Your task to perform on an android device: Open the map Image 0: 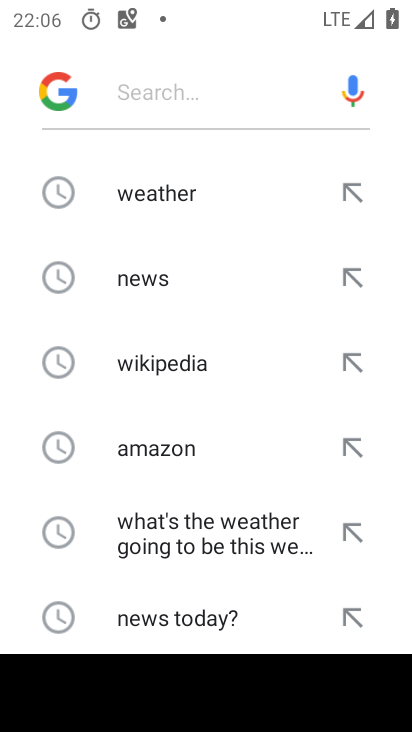
Step 0: press home button
Your task to perform on an android device: Open the map Image 1: 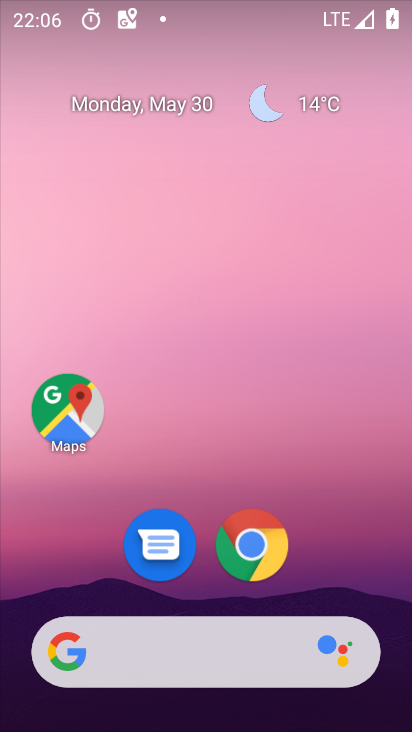
Step 1: click (75, 413)
Your task to perform on an android device: Open the map Image 2: 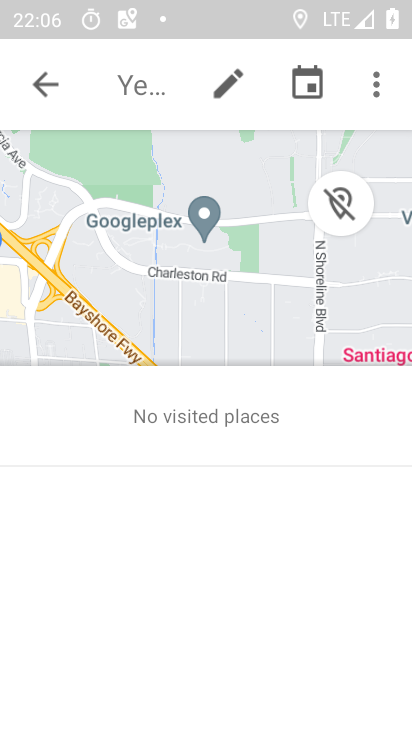
Step 2: task complete